Your task to perform on an android device: remove spam from my inbox in the gmail app Image 0: 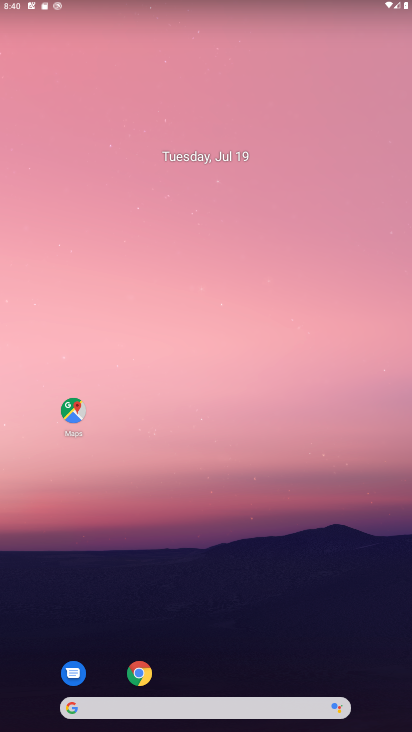
Step 0: drag from (375, 683) to (359, 201)
Your task to perform on an android device: remove spam from my inbox in the gmail app Image 1: 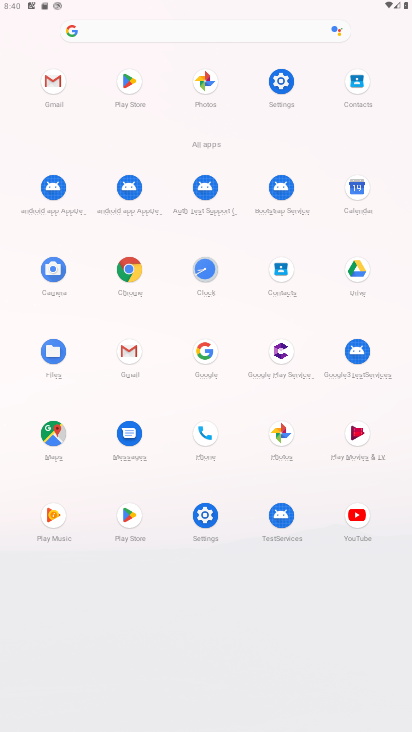
Step 1: click (127, 350)
Your task to perform on an android device: remove spam from my inbox in the gmail app Image 2: 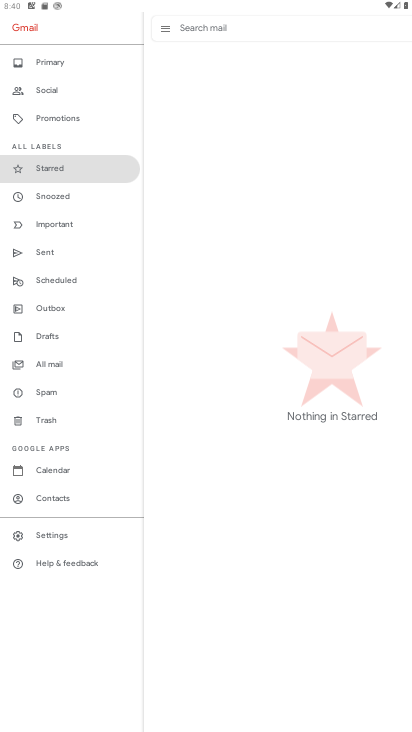
Step 2: click (47, 390)
Your task to perform on an android device: remove spam from my inbox in the gmail app Image 3: 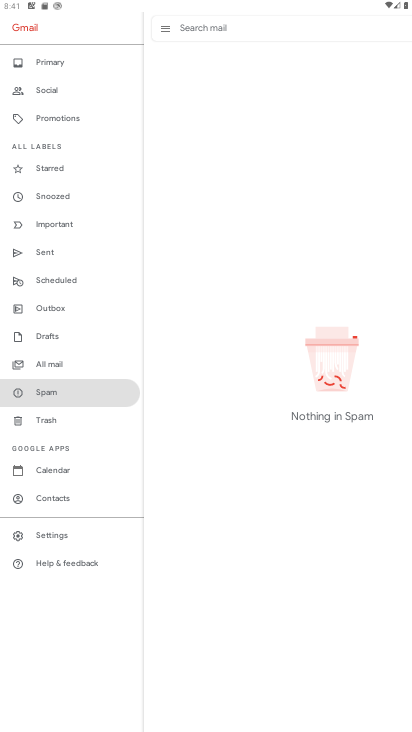
Step 3: task complete